Your task to perform on an android device: Show me popular videos on Youtube Image 0: 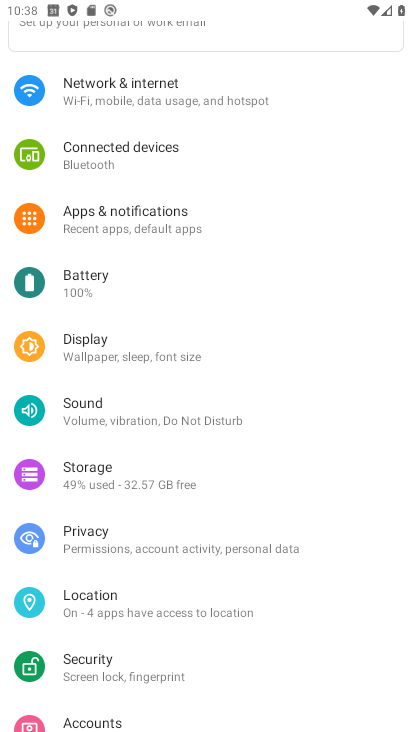
Step 0: press home button
Your task to perform on an android device: Show me popular videos on Youtube Image 1: 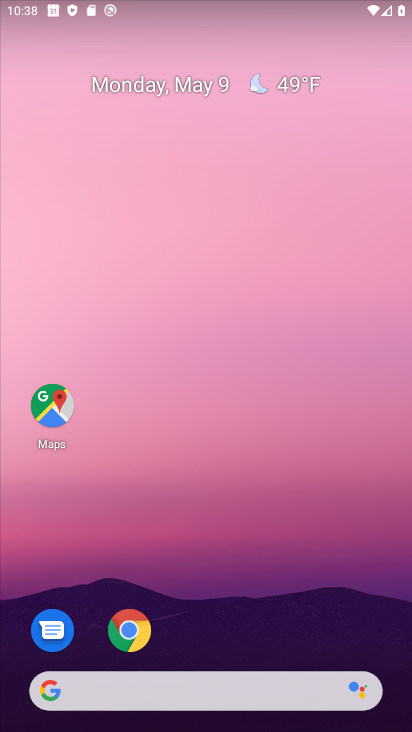
Step 1: drag from (207, 630) to (226, 57)
Your task to perform on an android device: Show me popular videos on Youtube Image 2: 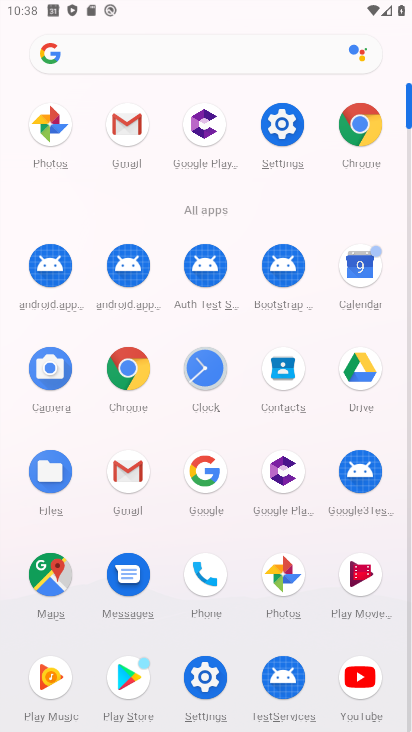
Step 2: click (352, 690)
Your task to perform on an android device: Show me popular videos on Youtube Image 3: 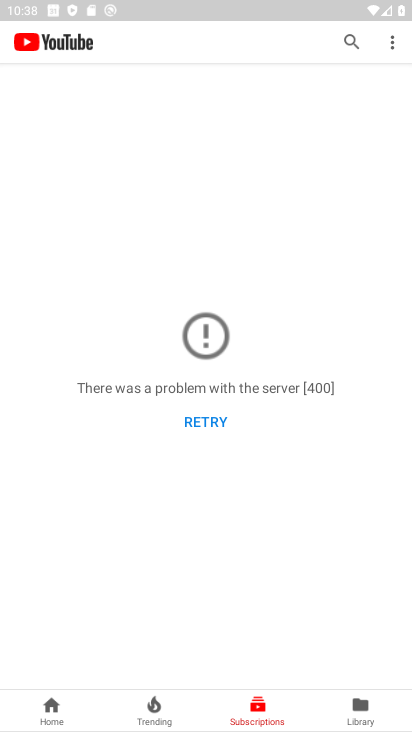
Step 3: click (61, 711)
Your task to perform on an android device: Show me popular videos on Youtube Image 4: 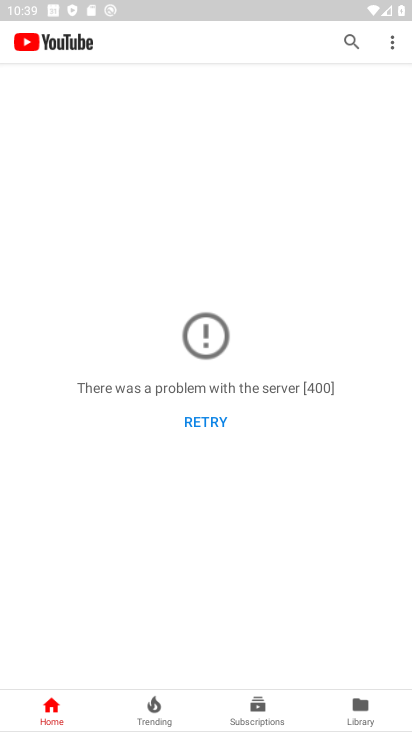
Step 4: click (344, 43)
Your task to perform on an android device: Show me popular videos on Youtube Image 5: 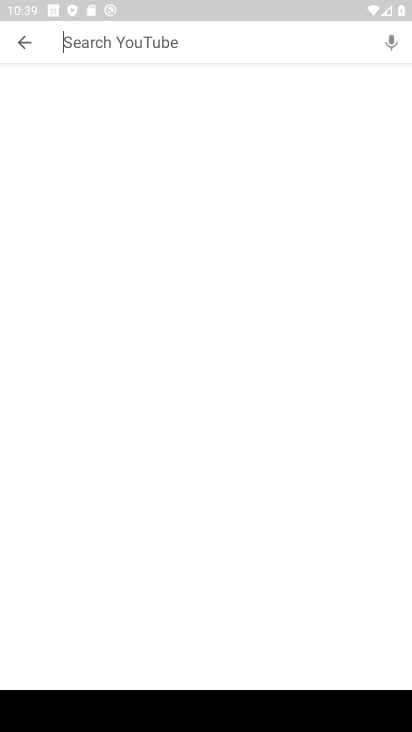
Step 5: type "popular videos "
Your task to perform on an android device: Show me popular videos on Youtube Image 6: 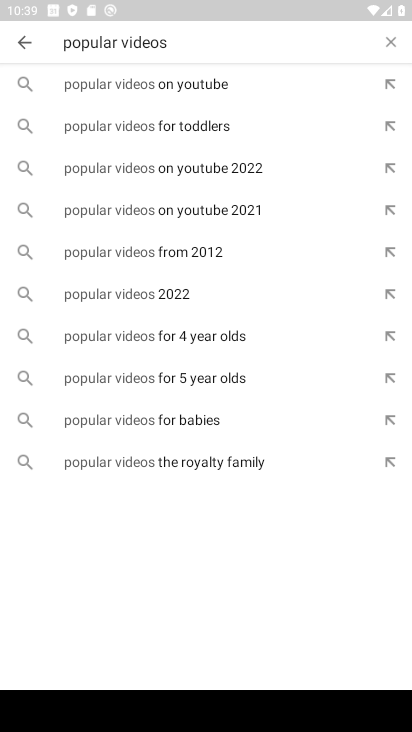
Step 6: click (192, 84)
Your task to perform on an android device: Show me popular videos on Youtube Image 7: 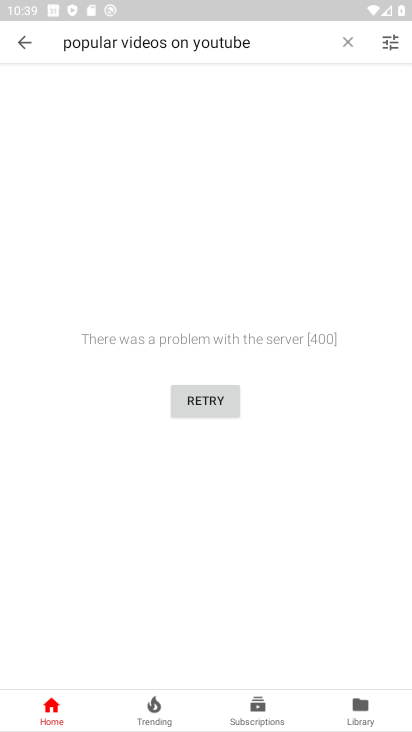
Step 7: task complete